Your task to perform on an android device: change the clock display to digital Image 0: 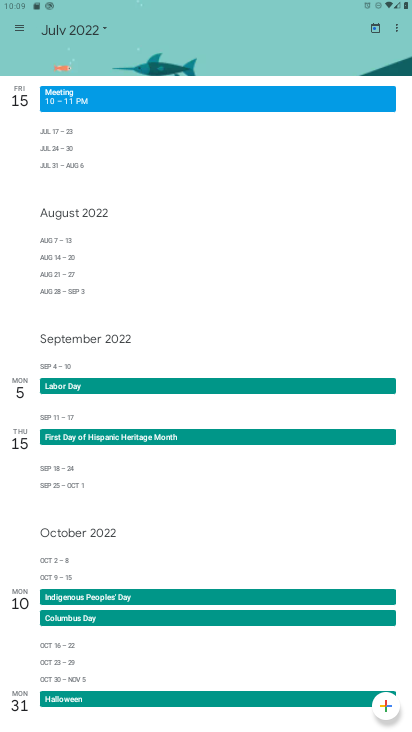
Step 0: press home button
Your task to perform on an android device: change the clock display to digital Image 1: 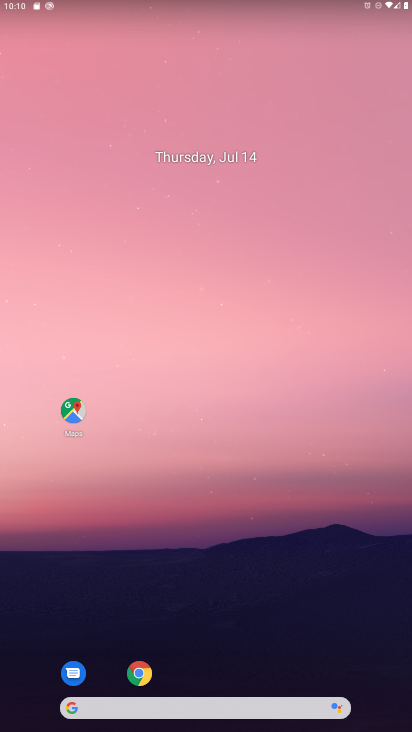
Step 1: drag from (210, 709) to (276, 250)
Your task to perform on an android device: change the clock display to digital Image 2: 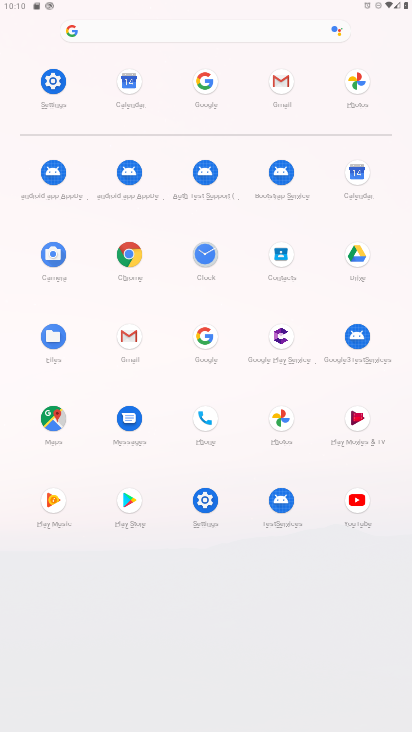
Step 2: click (206, 253)
Your task to perform on an android device: change the clock display to digital Image 3: 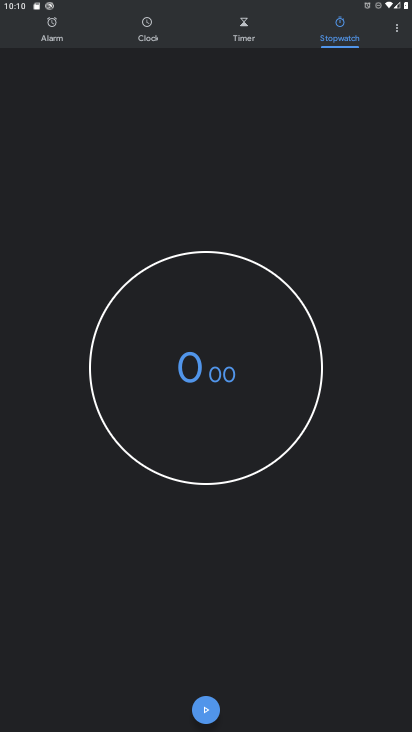
Step 3: click (397, 30)
Your task to perform on an android device: change the clock display to digital Image 4: 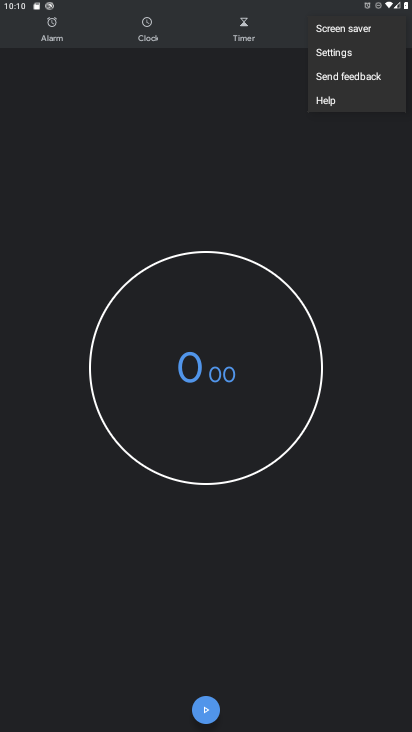
Step 4: click (338, 56)
Your task to perform on an android device: change the clock display to digital Image 5: 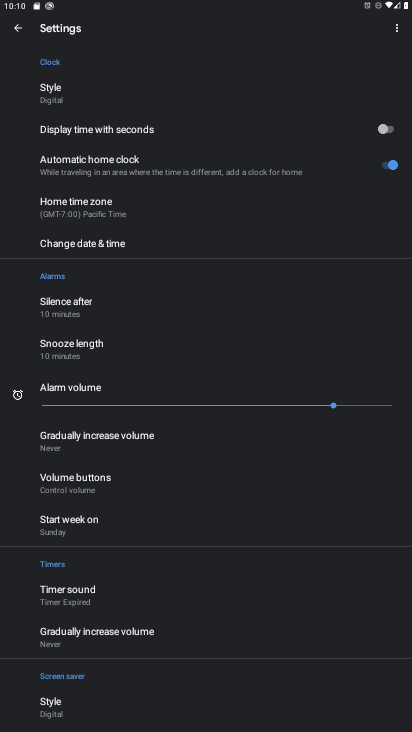
Step 5: click (63, 88)
Your task to perform on an android device: change the clock display to digital Image 6: 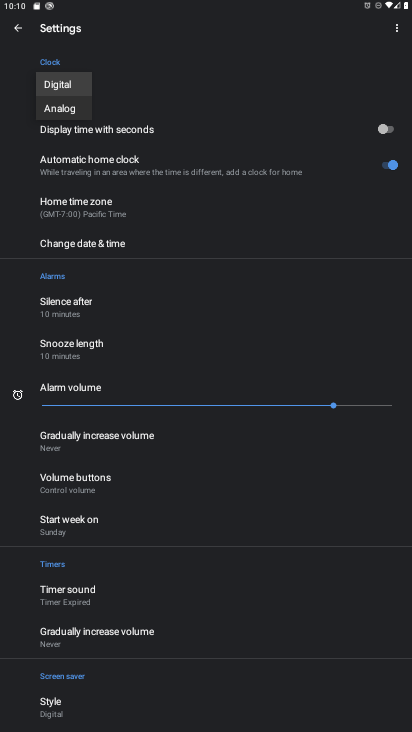
Step 6: click (74, 92)
Your task to perform on an android device: change the clock display to digital Image 7: 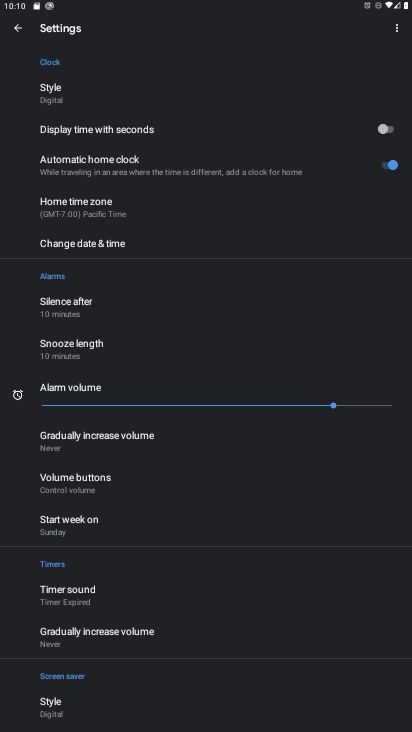
Step 7: task complete